Your task to perform on an android device: Search for "duracell triple a" on newegg.com, select the first entry, add it to the cart, then select checkout. Image 0: 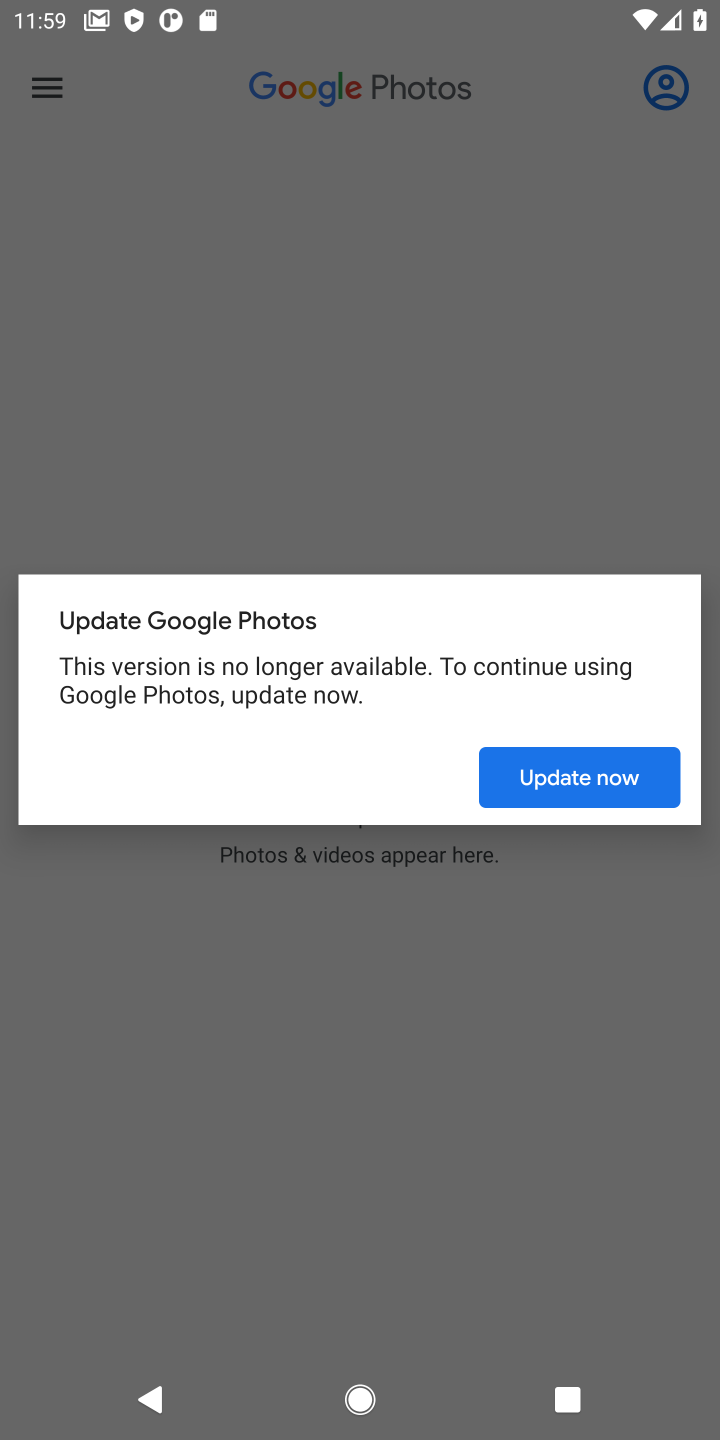
Step 0: press home button
Your task to perform on an android device: Search for "duracell triple a" on newegg.com, select the first entry, add it to the cart, then select checkout. Image 1: 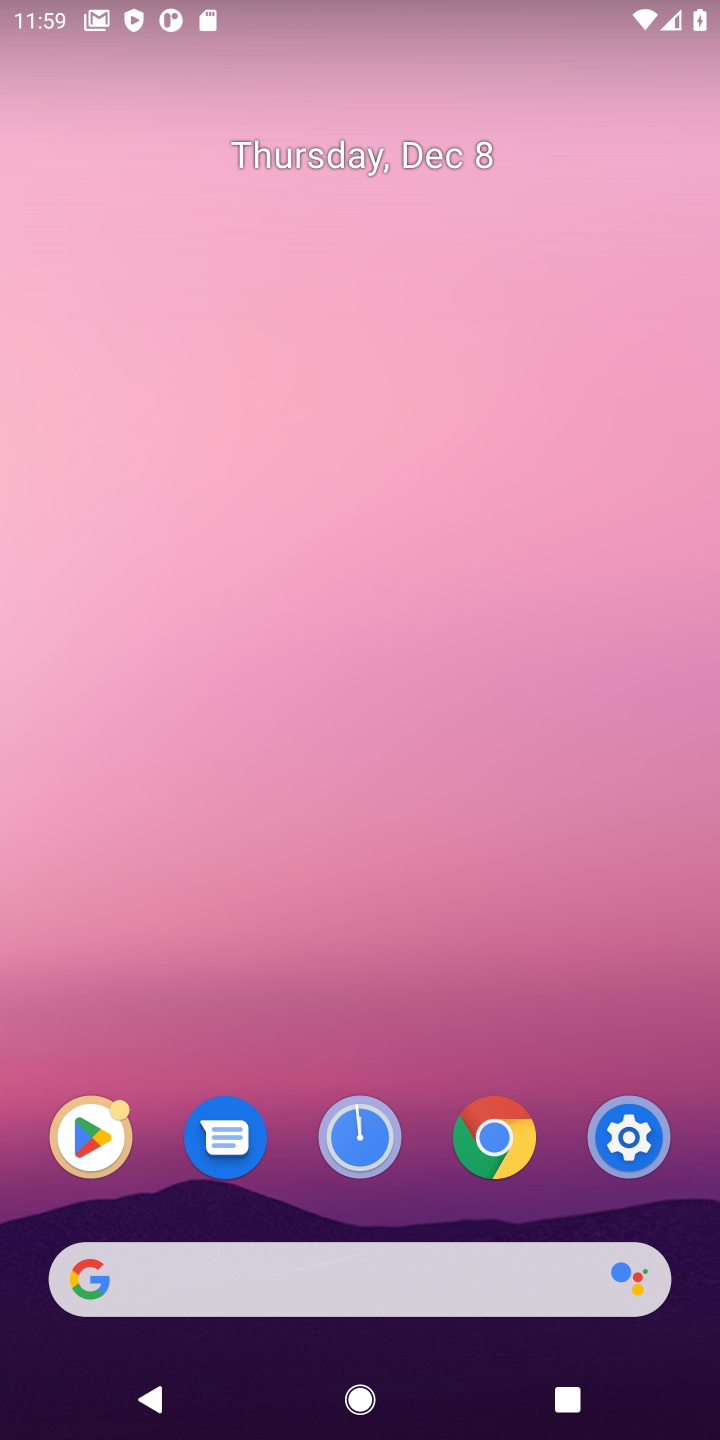
Step 1: click (304, 1264)
Your task to perform on an android device: Search for "duracell triple a" on newegg.com, select the first entry, add it to the cart, then select checkout. Image 2: 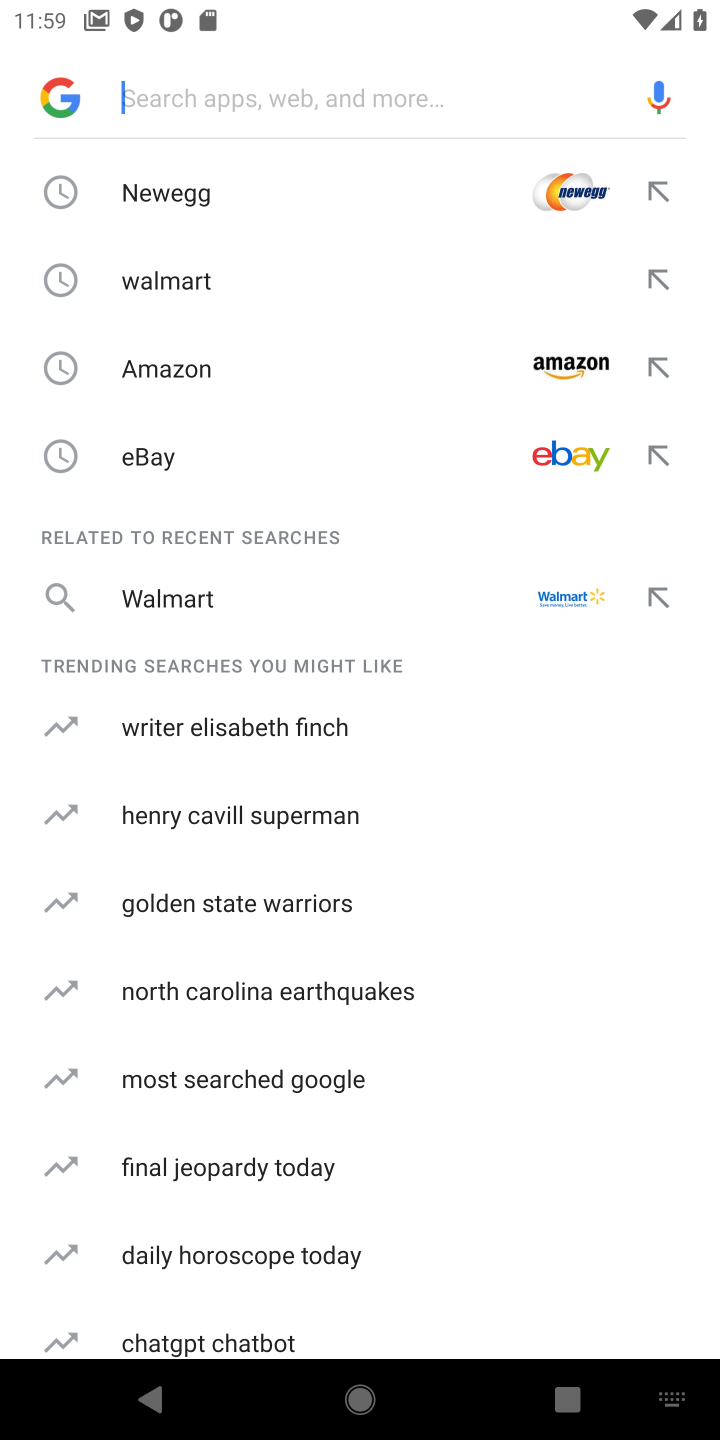
Step 2: type "newegg"
Your task to perform on an android device: Search for "duracell triple a" on newegg.com, select the first entry, add it to the cart, then select checkout. Image 3: 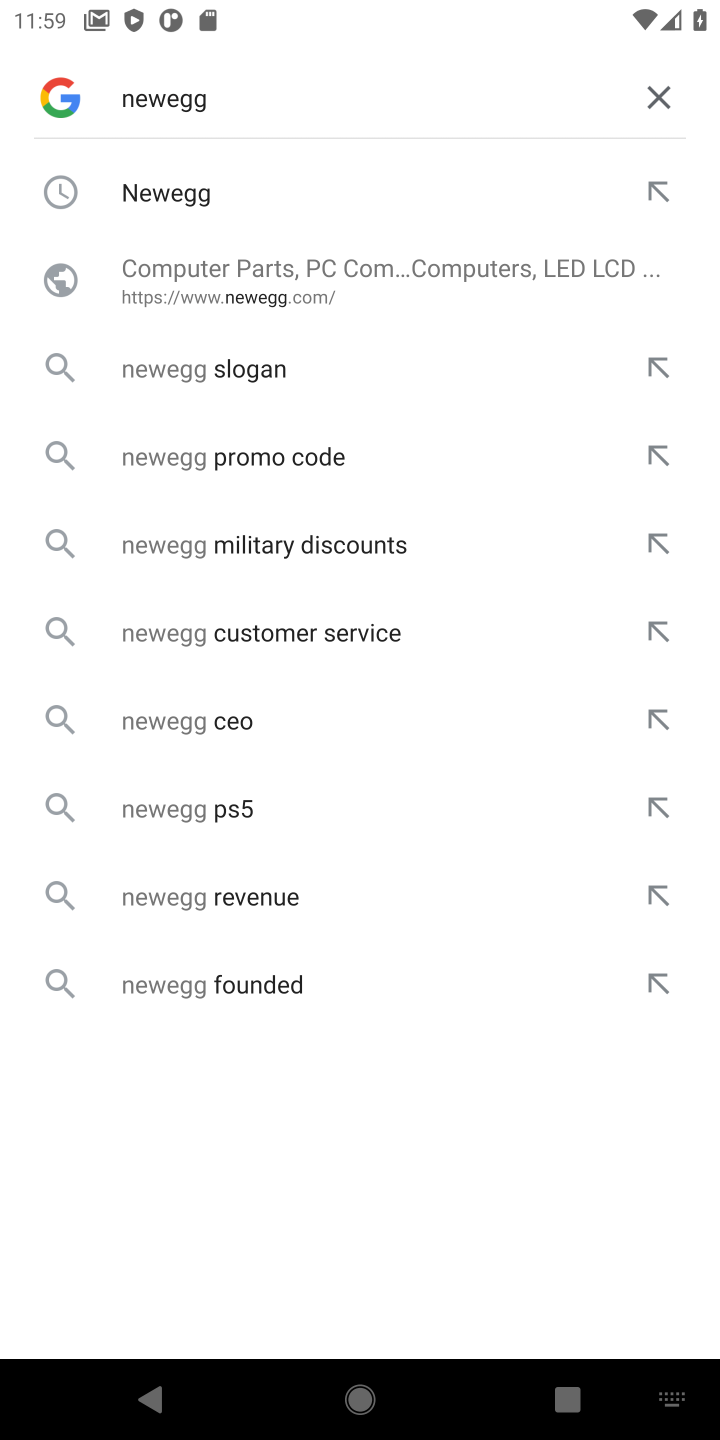
Step 3: click (188, 197)
Your task to perform on an android device: Search for "duracell triple a" on newegg.com, select the first entry, add it to the cart, then select checkout. Image 4: 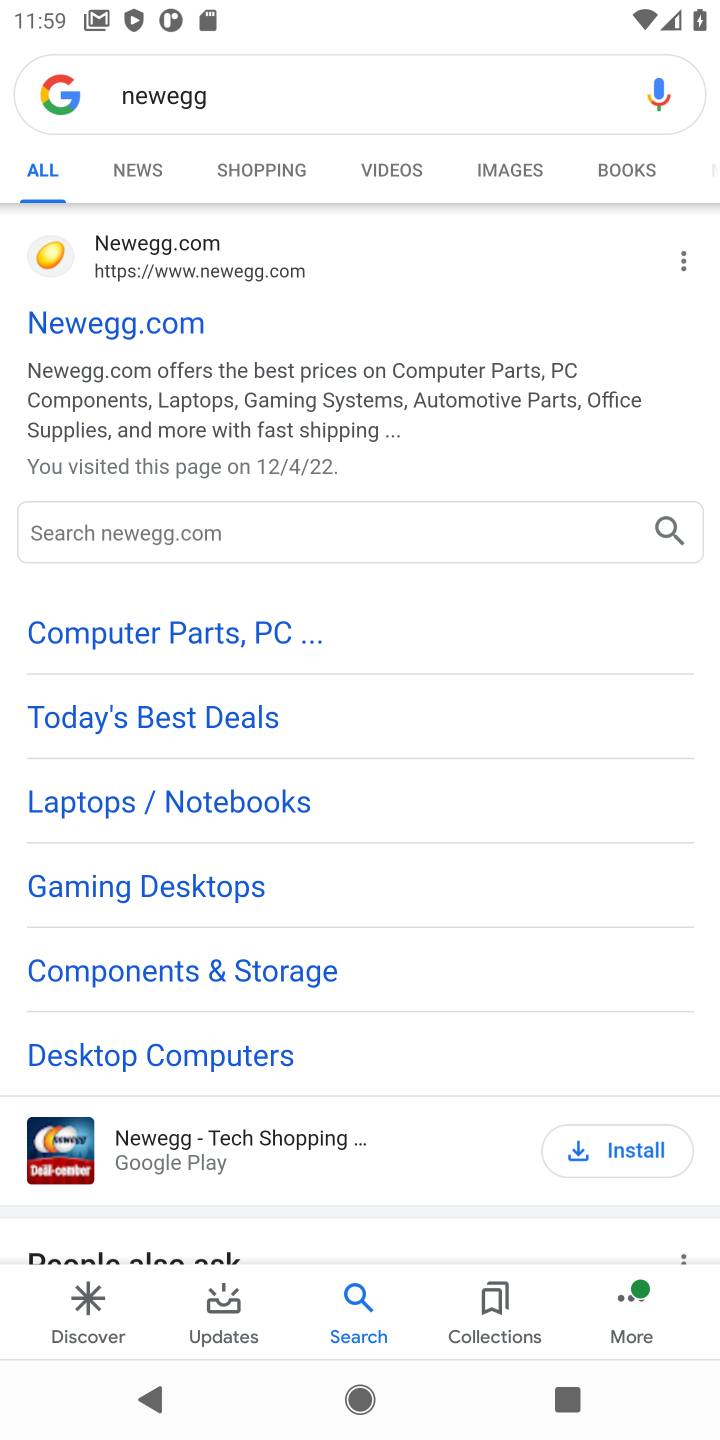
Step 4: click (136, 326)
Your task to perform on an android device: Search for "duracell triple a" on newegg.com, select the first entry, add it to the cart, then select checkout. Image 5: 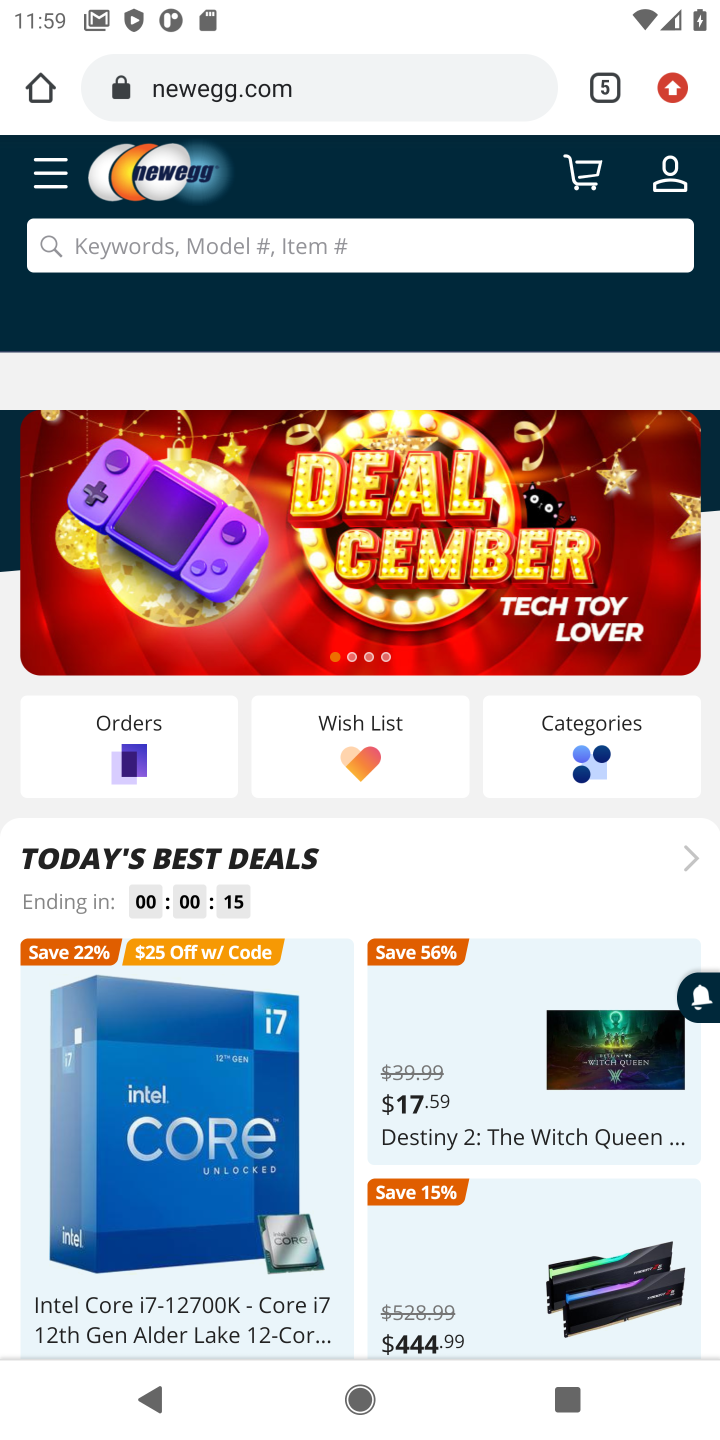
Step 5: click (243, 258)
Your task to perform on an android device: Search for "duracell triple a" on newegg.com, select the first entry, add it to the cart, then select checkout. Image 6: 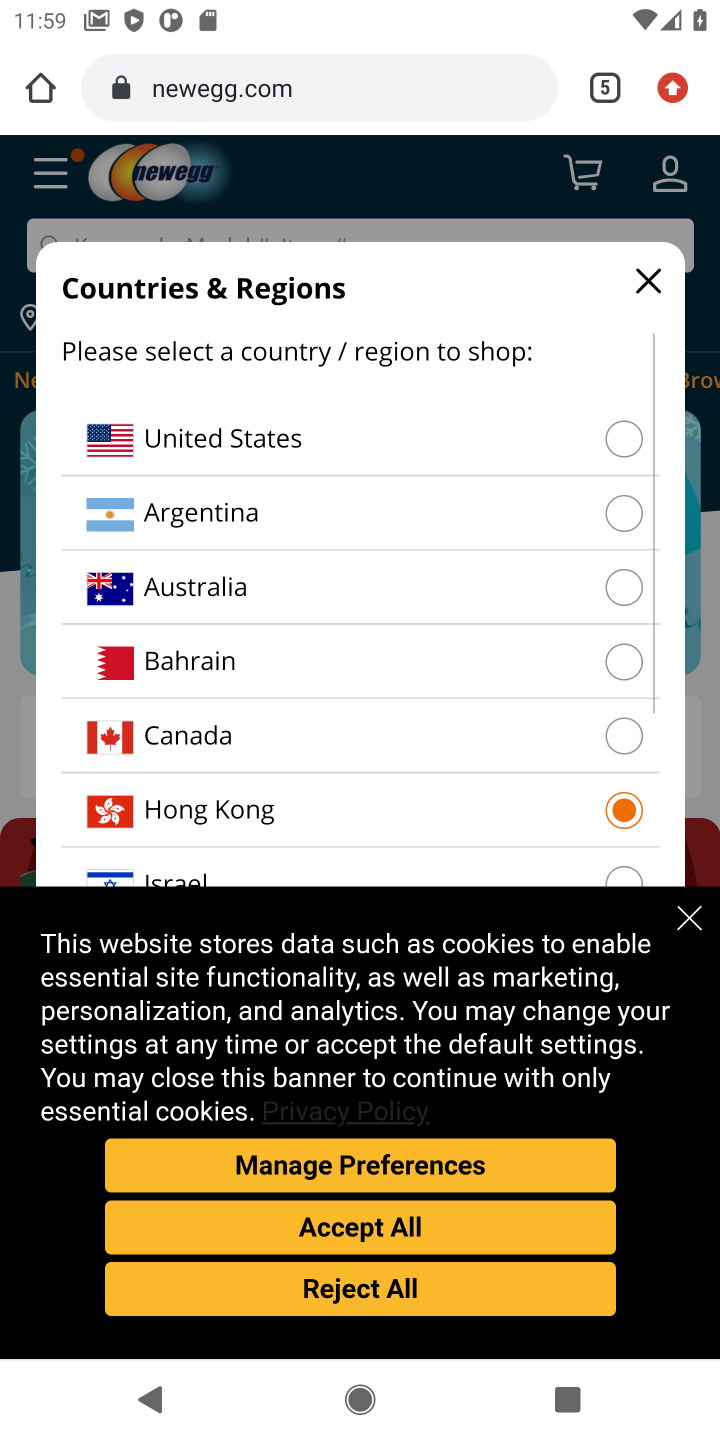
Step 6: type "duracell "
Your task to perform on an android device: Search for "duracell triple a" on newegg.com, select the first entry, add it to the cart, then select checkout. Image 7: 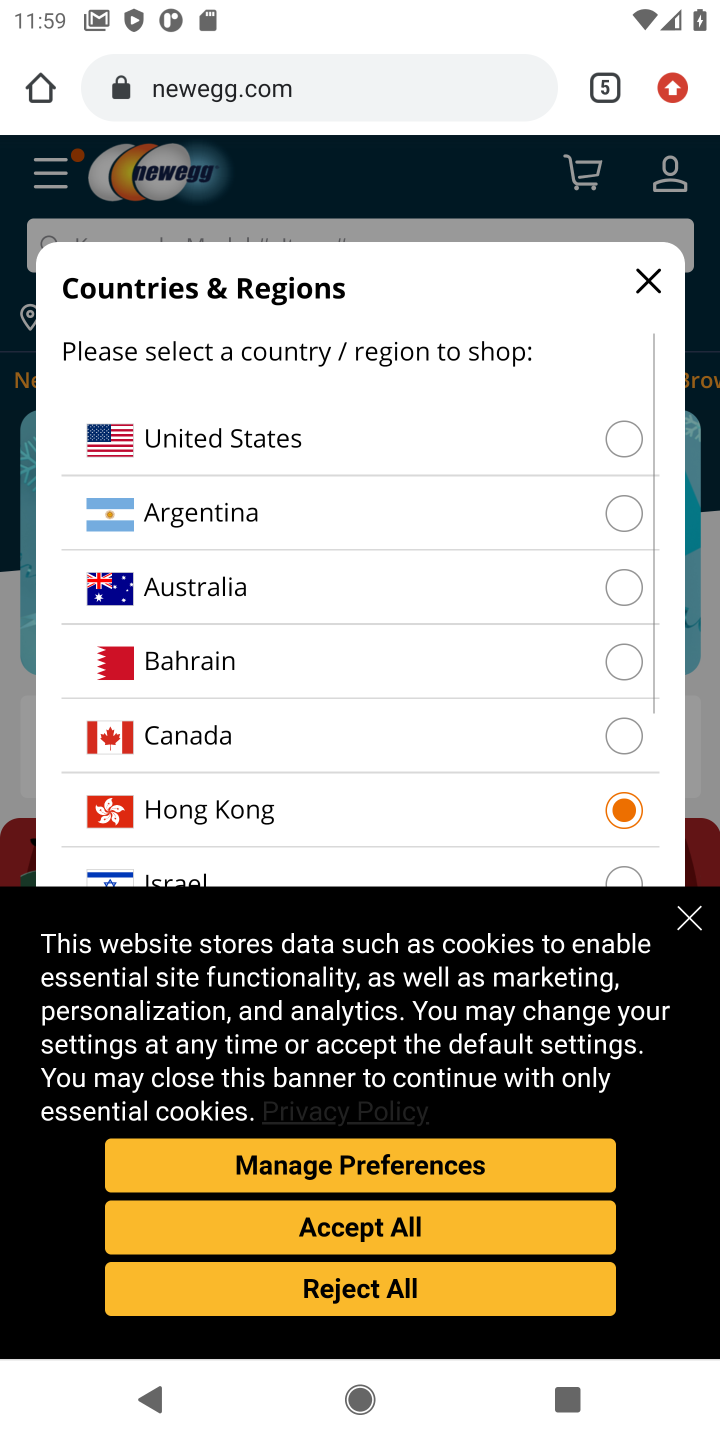
Step 7: click (481, 1221)
Your task to perform on an android device: Search for "duracell triple a" on newegg.com, select the first entry, add it to the cart, then select checkout. Image 8: 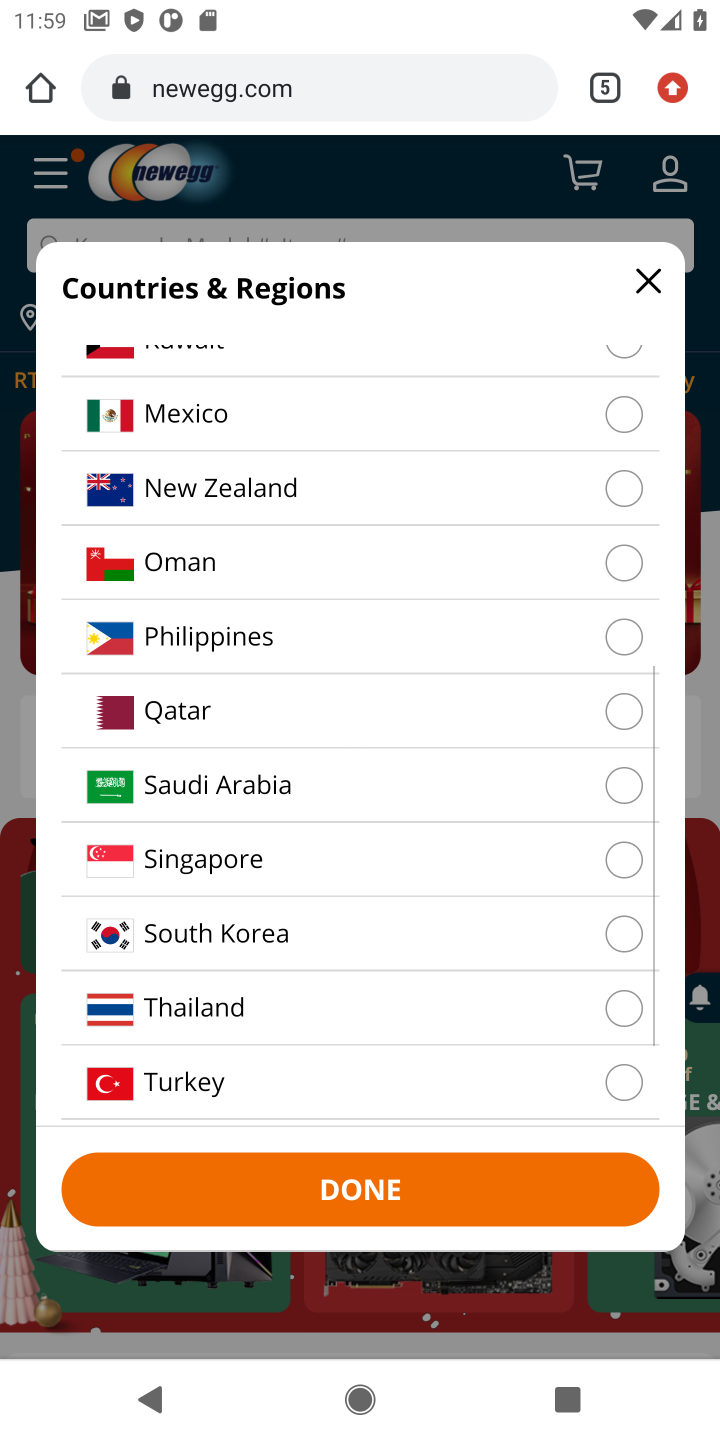
Step 8: click (460, 425)
Your task to perform on an android device: Search for "duracell triple a" on newegg.com, select the first entry, add it to the cart, then select checkout. Image 9: 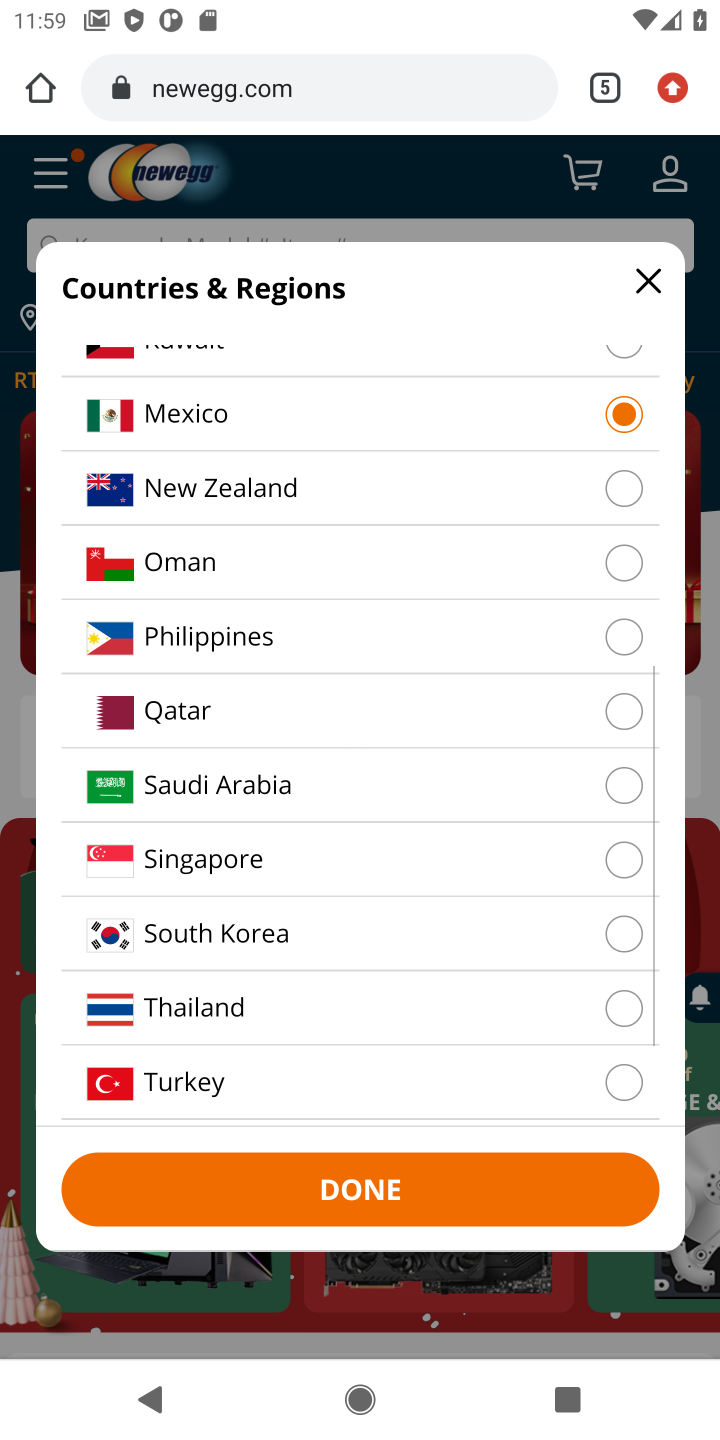
Step 9: click (431, 1199)
Your task to perform on an android device: Search for "duracell triple a" on newegg.com, select the first entry, add it to the cart, then select checkout. Image 10: 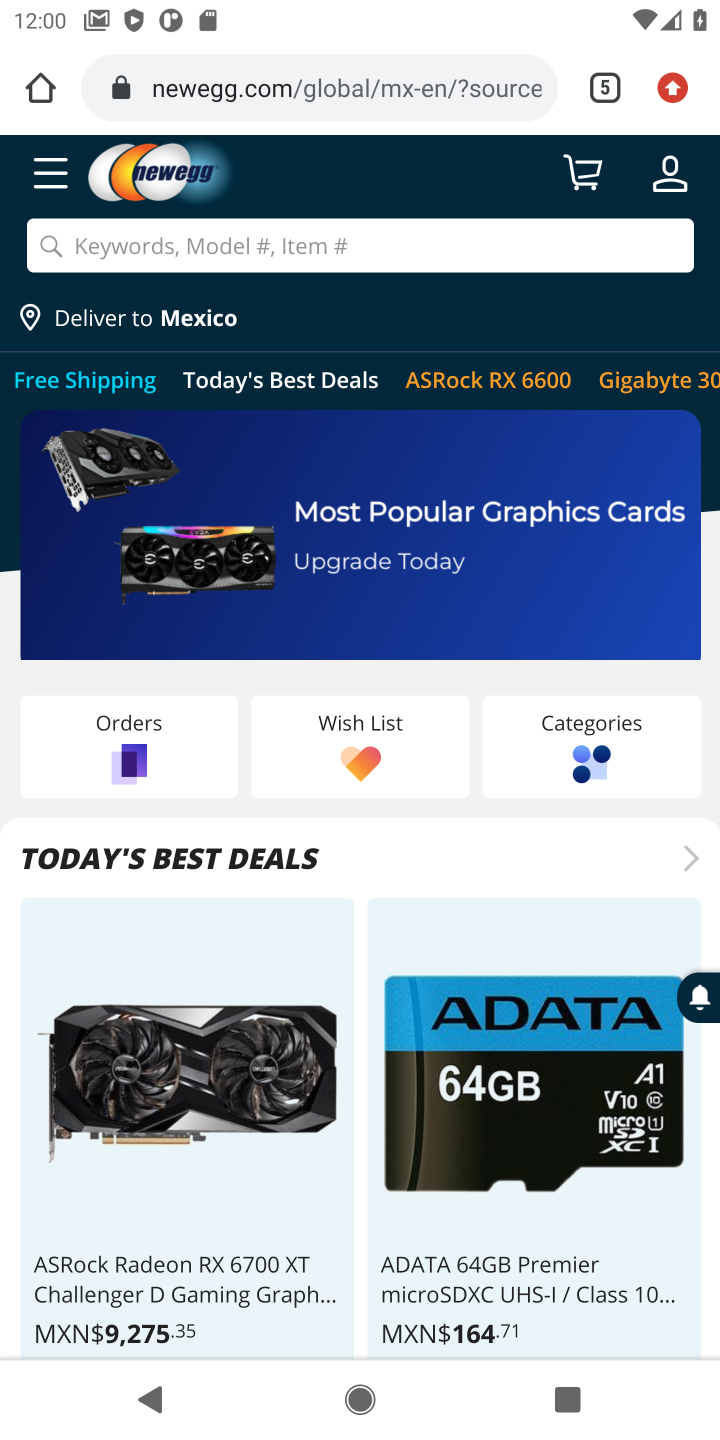
Step 10: click (269, 252)
Your task to perform on an android device: Search for "duracell triple a" on newegg.com, select the first entry, add it to the cart, then select checkout. Image 11: 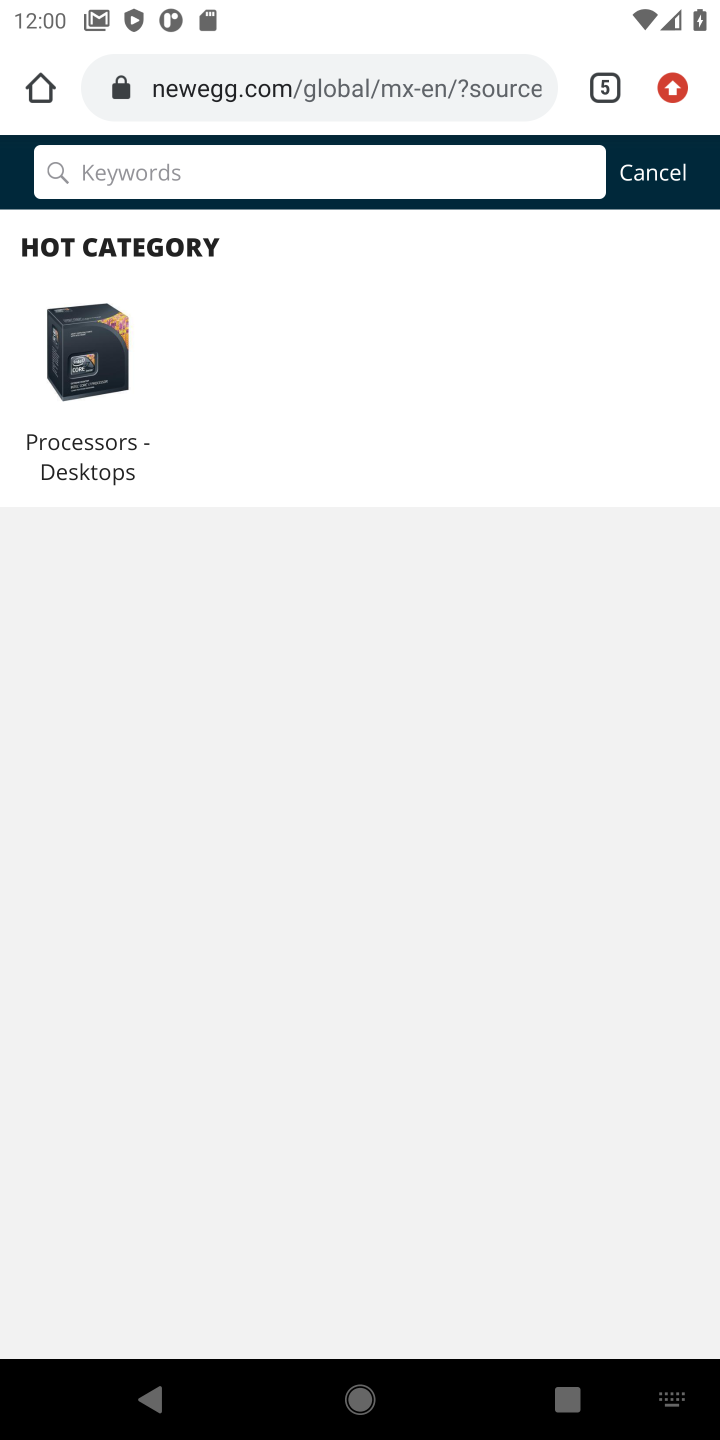
Step 11: type "duracell triple a"
Your task to perform on an android device: Search for "duracell triple a" on newegg.com, select the first entry, add it to the cart, then select checkout. Image 12: 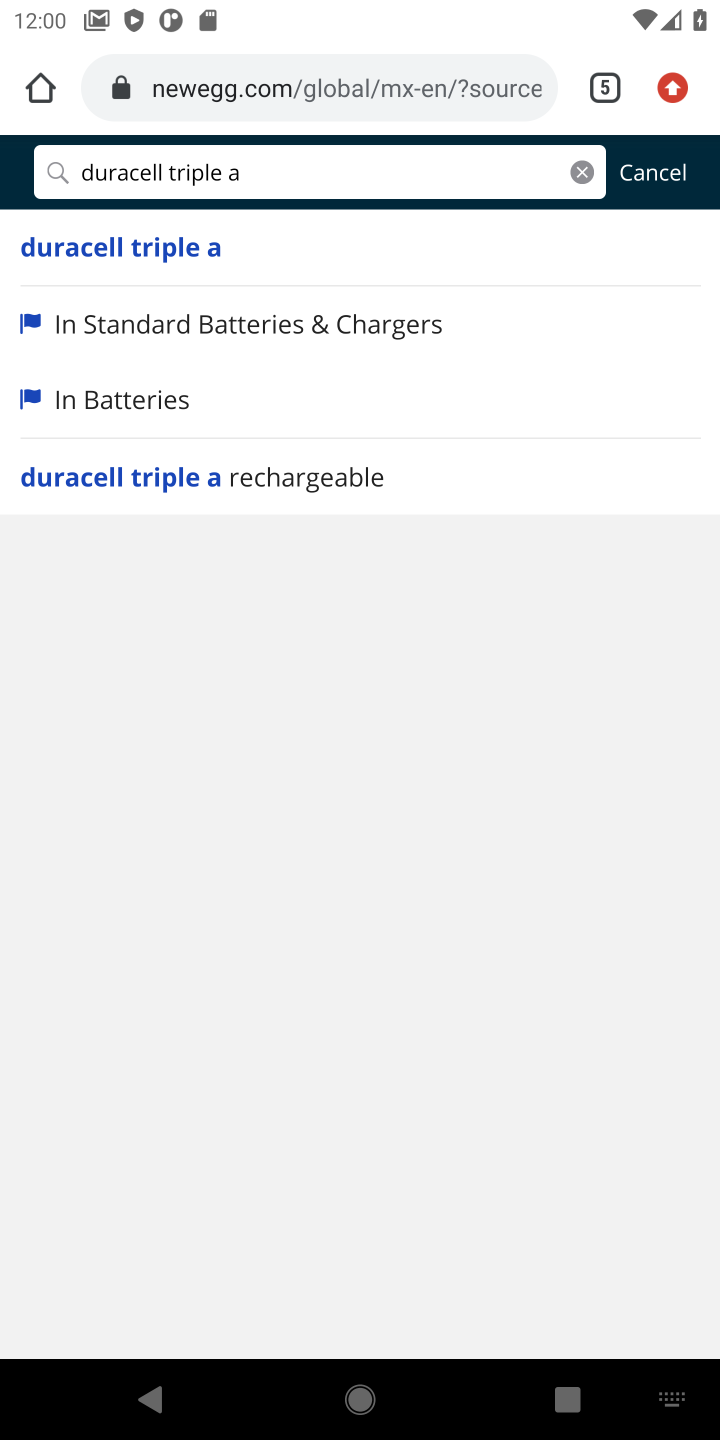
Step 12: click (206, 237)
Your task to perform on an android device: Search for "duracell triple a" on newegg.com, select the first entry, add it to the cart, then select checkout. Image 13: 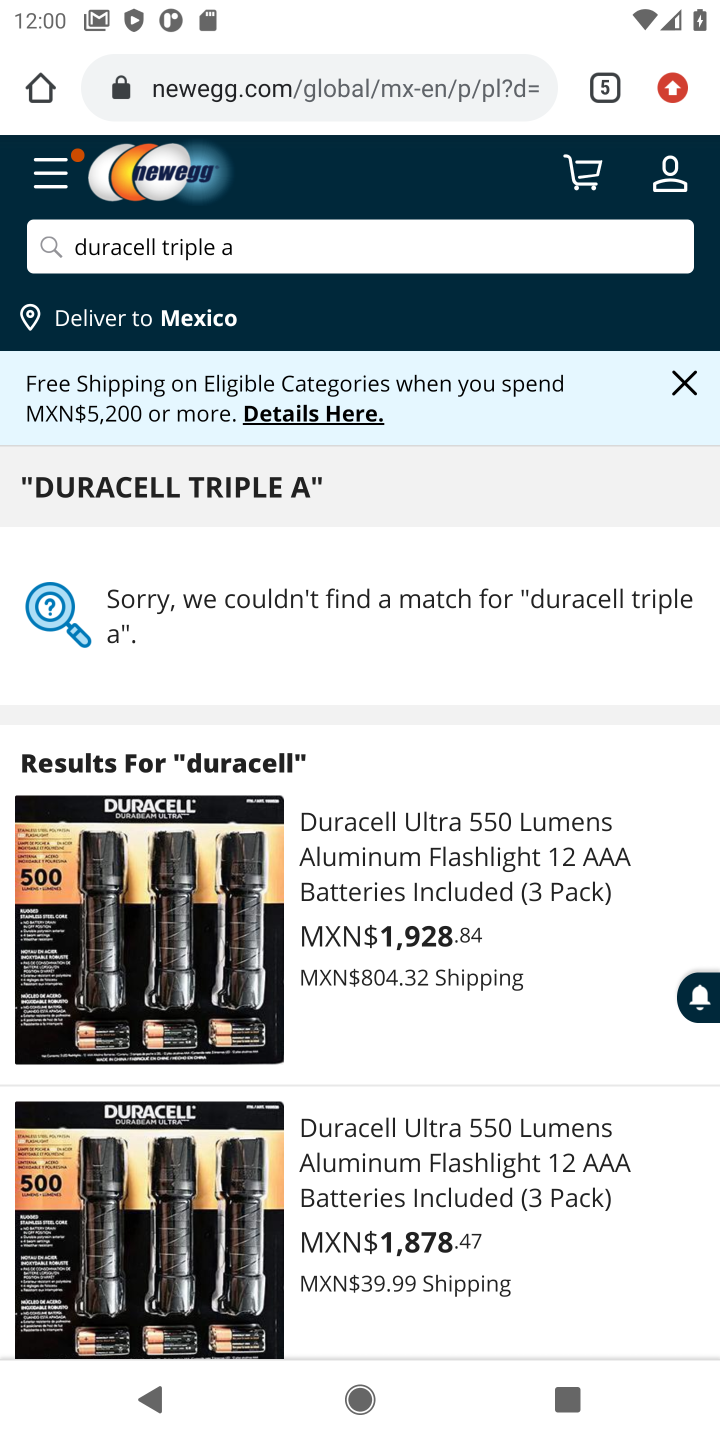
Step 13: click (431, 883)
Your task to perform on an android device: Search for "duracell triple a" on newegg.com, select the first entry, add it to the cart, then select checkout. Image 14: 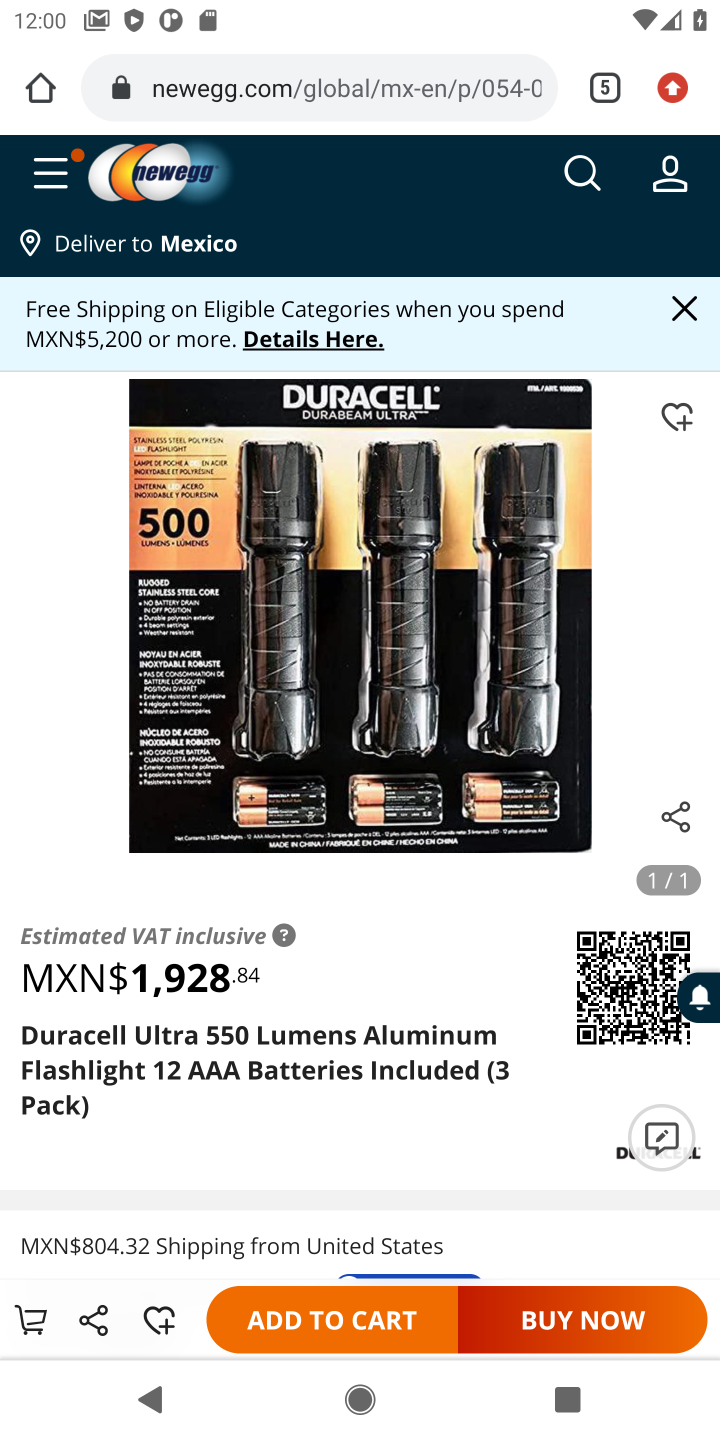
Step 14: click (321, 1303)
Your task to perform on an android device: Search for "duracell triple a" on newegg.com, select the first entry, add it to the cart, then select checkout. Image 15: 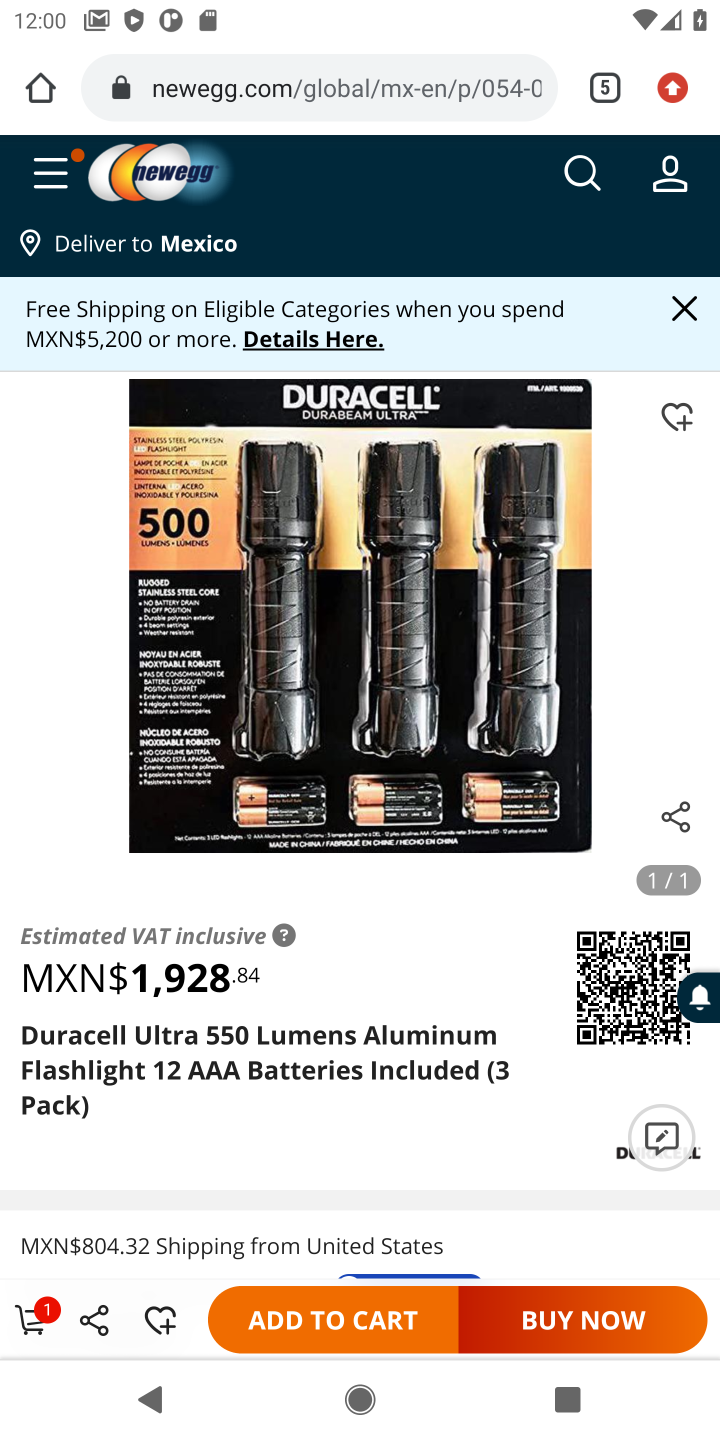
Step 15: task complete